Your task to perform on an android device: open sync settings in chrome Image 0: 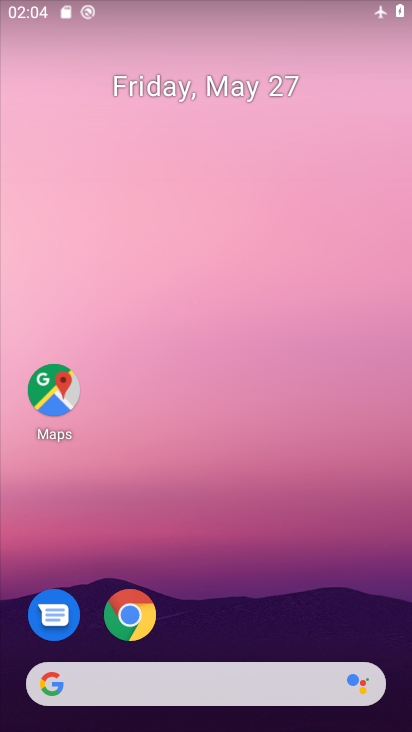
Step 0: drag from (366, 626) to (362, 124)
Your task to perform on an android device: open sync settings in chrome Image 1: 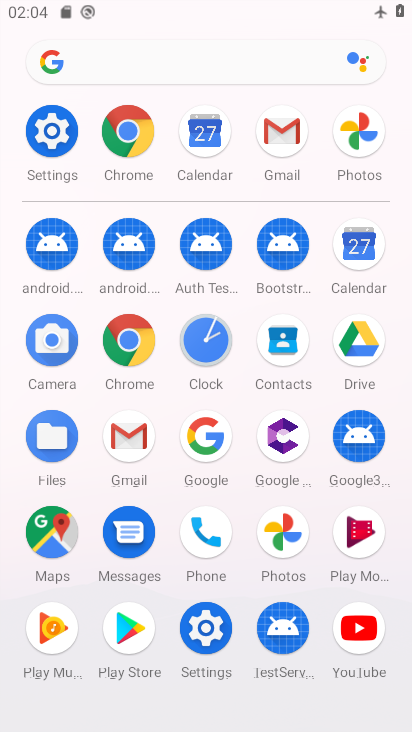
Step 1: click (131, 356)
Your task to perform on an android device: open sync settings in chrome Image 2: 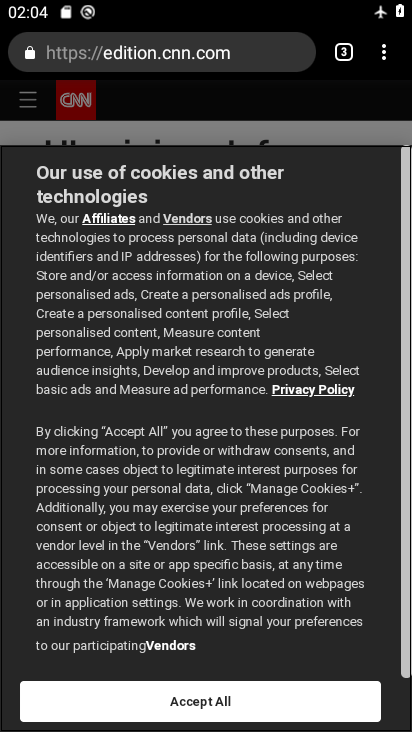
Step 2: click (387, 59)
Your task to perform on an android device: open sync settings in chrome Image 3: 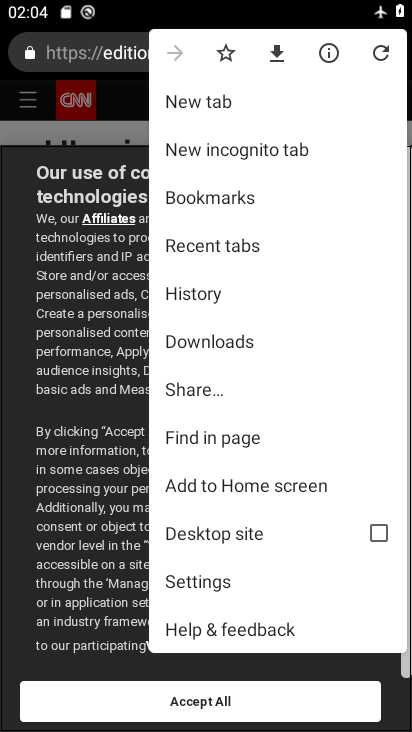
Step 3: click (250, 581)
Your task to perform on an android device: open sync settings in chrome Image 4: 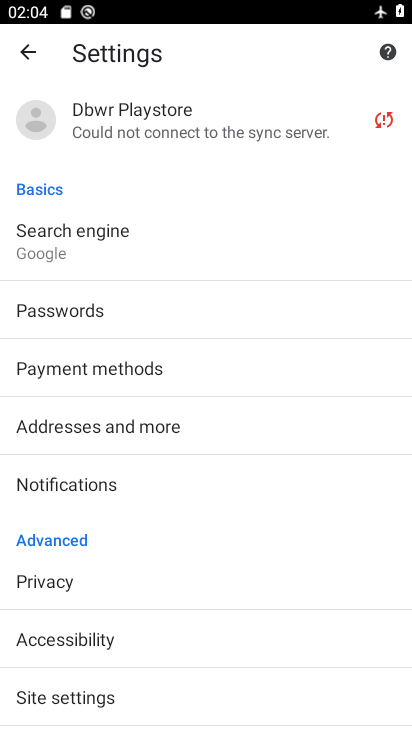
Step 4: drag from (260, 613) to (267, 418)
Your task to perform on an android device: open sync settings in chrome Image 5: 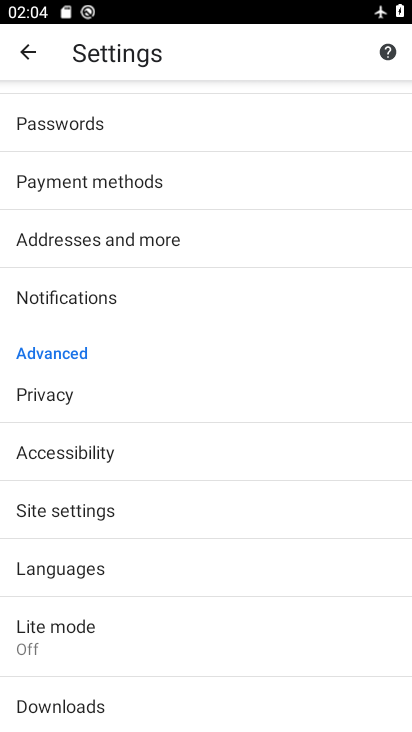
Step 5: drag from (288, 583) to (291, 407)
Your task to perform on an android device: open sync settings in chrome Image 6: 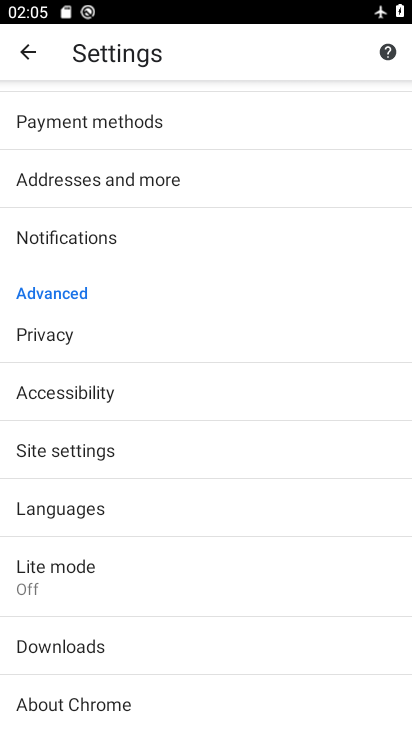
Step 6: click (220, 446)
Your task to perform on an android device: open sync settings in chrome Image 7: 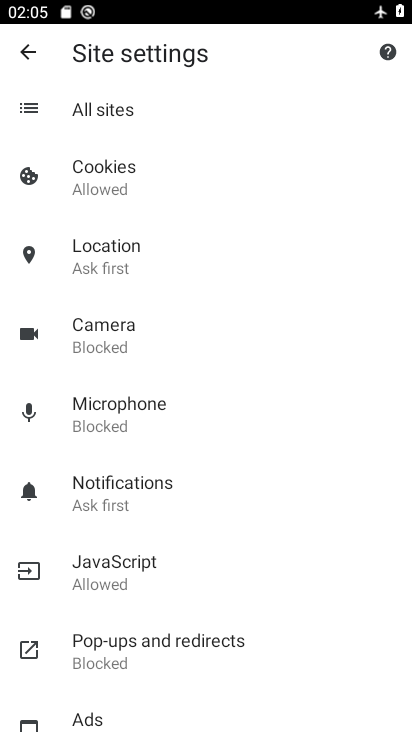
Step 7: drag from (260, 491) to (260, 332)
Your task to perform on an android device: open sync settings in chrome Image 8: 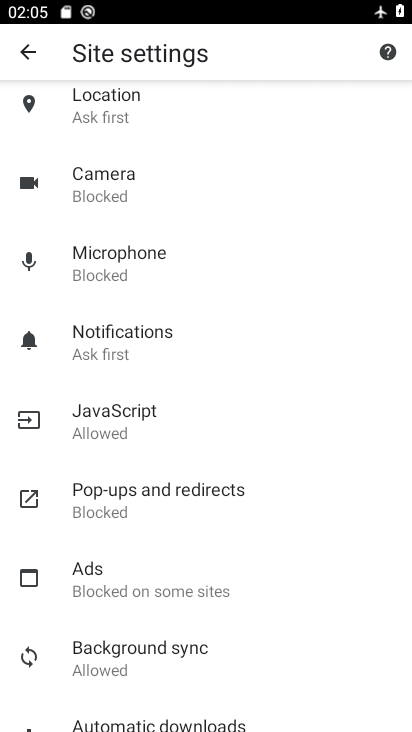
Step 8: drag from (308, 497) to (310, 332)
Your task to perform on an android device: open sync settings in chrome Image 9: 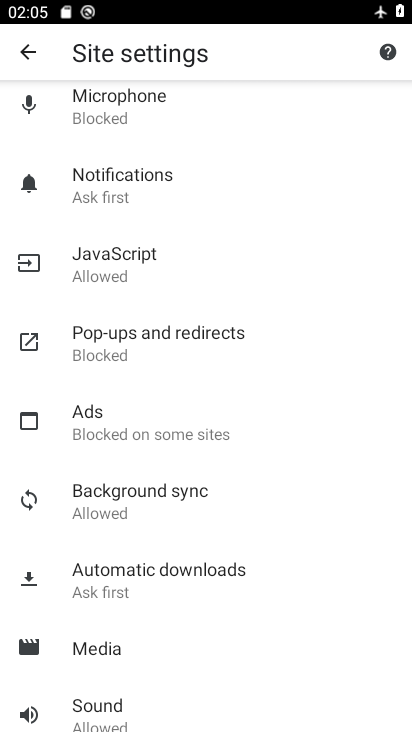
Step 9: drag from (326, 490) to (318, 351)
Your task to perform on an android device: open sync settings in chrome Image 10: 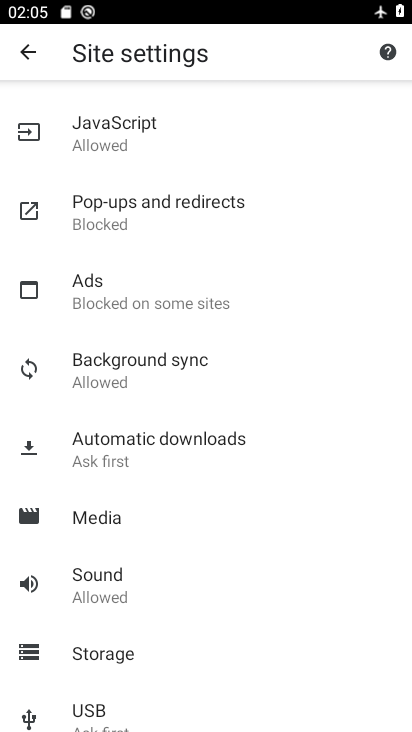
Step 10: click (167, 379)
Your task to perform on an android device: open sync settings in chrome Image 11: 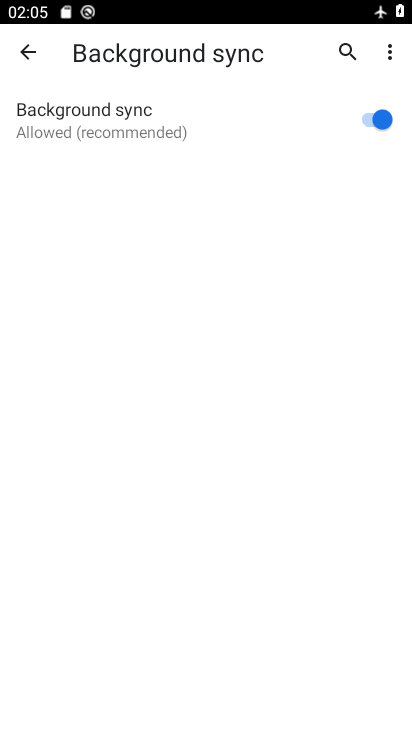
Step 11: task complete